Your task to perform on an android device: Go to Google Image 0: 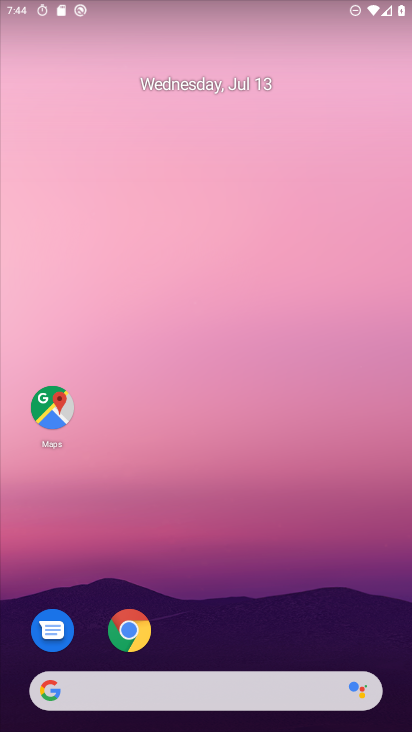
Step 0: drag from (396, 636) to (267, 6)
Your task to perform on an android device: Go to Google Image 1: 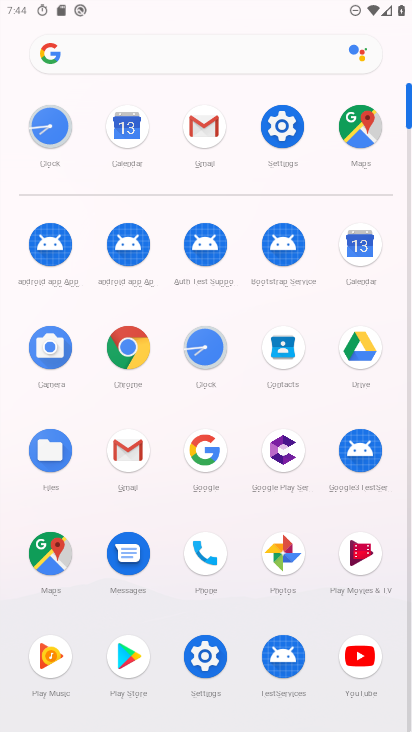
Step 1: click (211, 464)
Your task to perform on an android device: Go to Google Image 2: 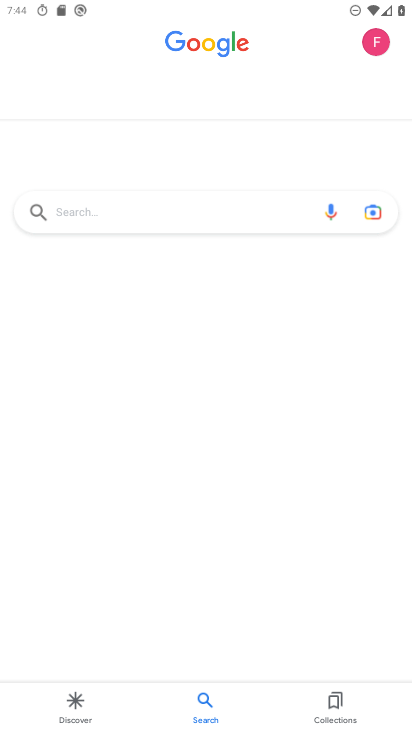
Step 2: task complete